Your task to perform on an android device: Toggle the flashlight Image 0: 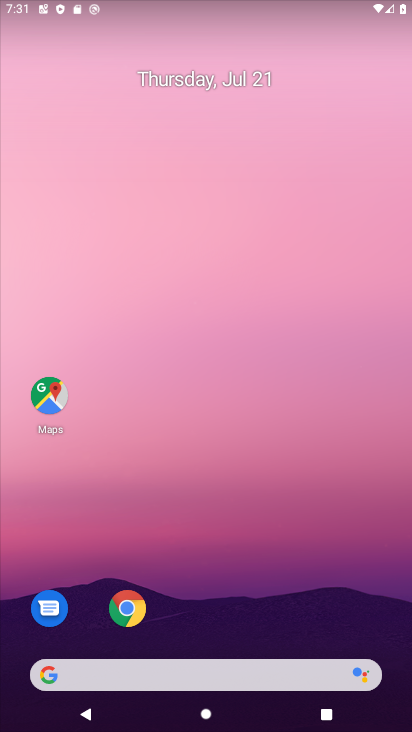
Step 0: drag from (164, 675) to (339, 190)
Your task to perform on an android device: Toggle the flashlight Image 1: 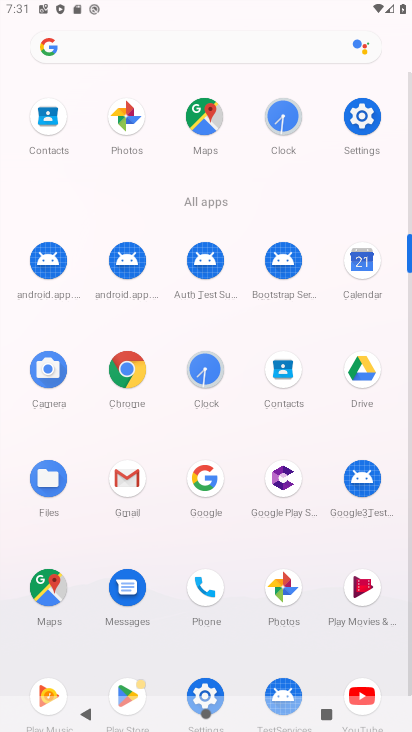
Step 1: click (363, 115)
Your task to perform on an android device: Toggle the flashlight Image 2: 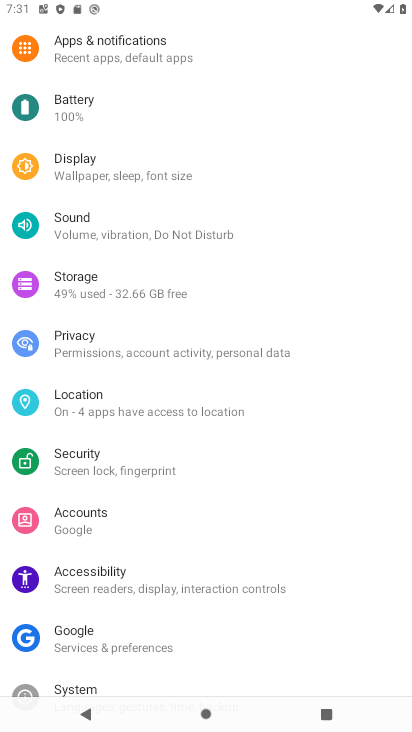
Step 2: click (148, 179)
Your task to perform on an android device: Toggle the flashlight Image 3: 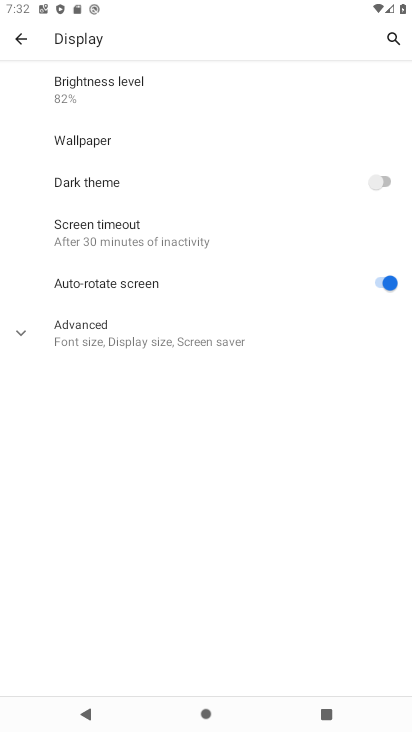
Step 3: click (128, 347)
Your task to perform on an android device: Toggle the flashlight Image 4: 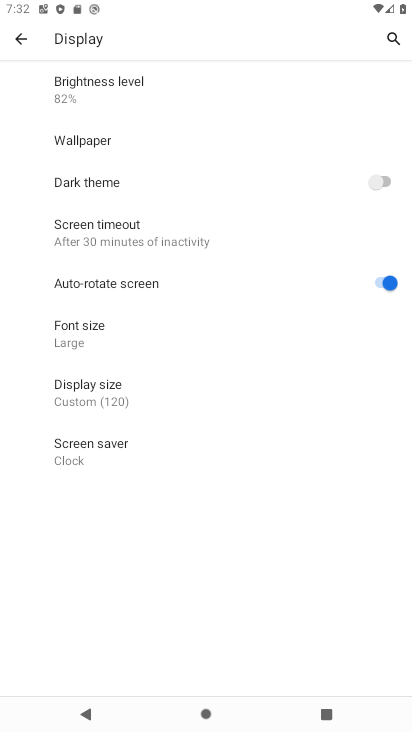
Step 4: task complete